Your task to perform on an android device: find photos in the google photos app Image 0: 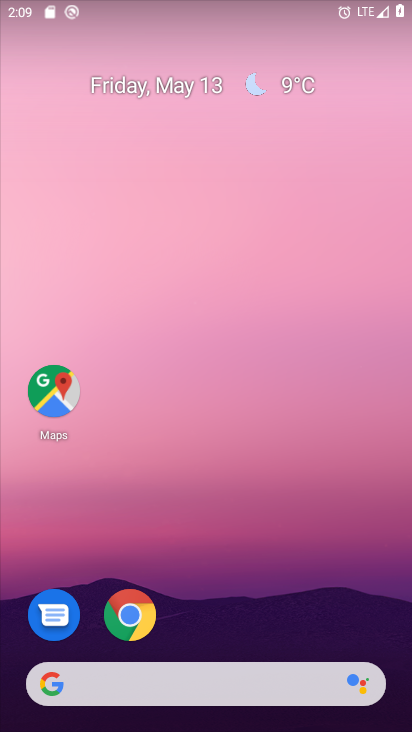
Step 0: drag from (315, 551) to (339, 84)
Your task to perform on an android device: find photos in the google photos app Image 1: 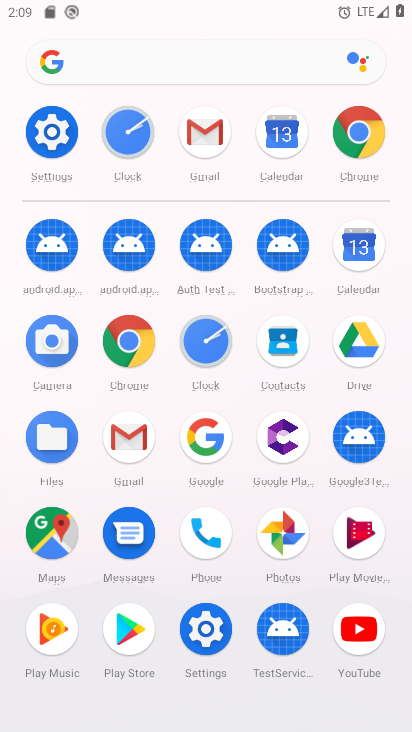
Step 1: click (266, 526)
Your task to perform on an android device: find photos in the google photos app Image 2: 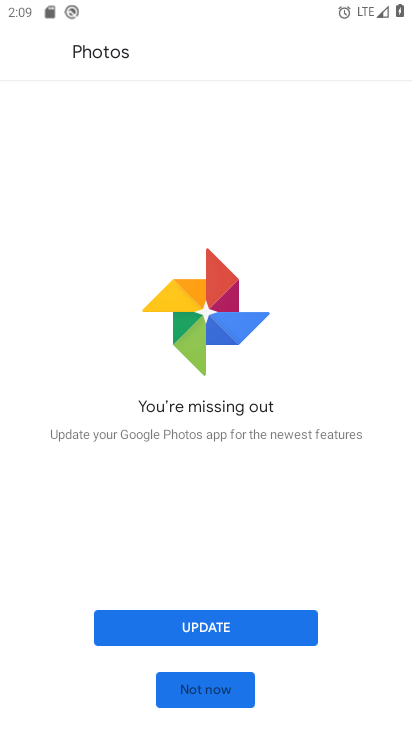
Step 2: click (228, 694)
Your task to perform on an android device: find photos in the google photos app Image 3: 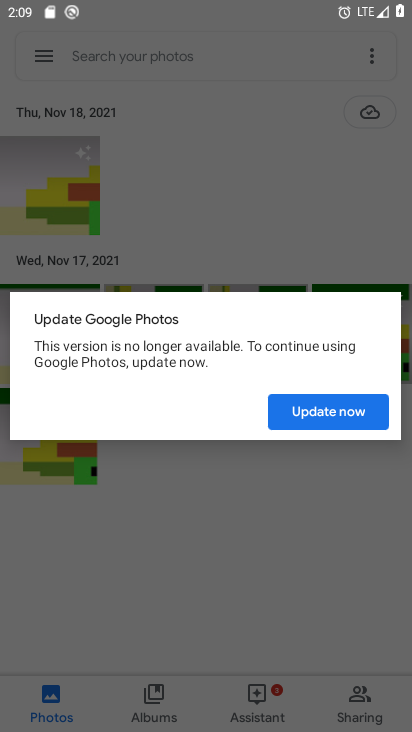
Step 3: click (283, 411)
Your task to perform on an android device: find photos in the google photos app Image 4: 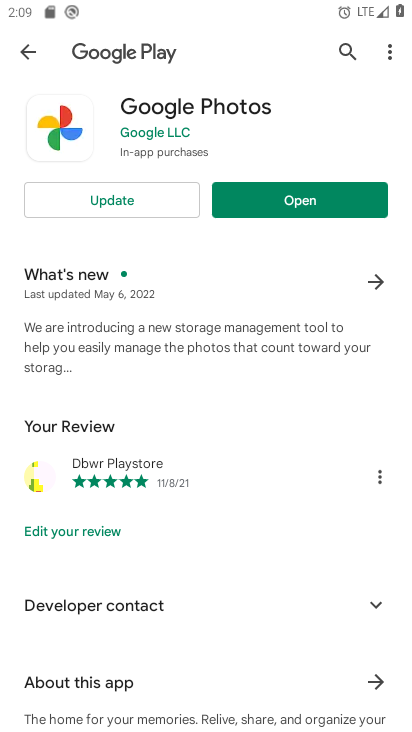
Step 4: click (317, 199)
Your task to perform on an android device: find photos in the google photos app Image 5: 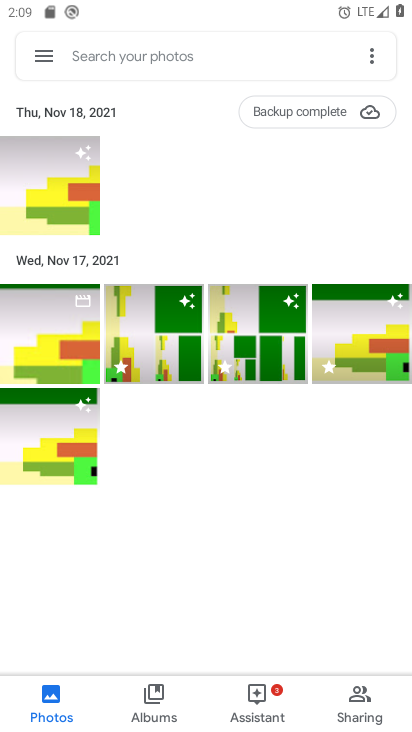
Step 5: click (68, 195)
Your task to perform on an android device: find photos in the google photos app Image 6: 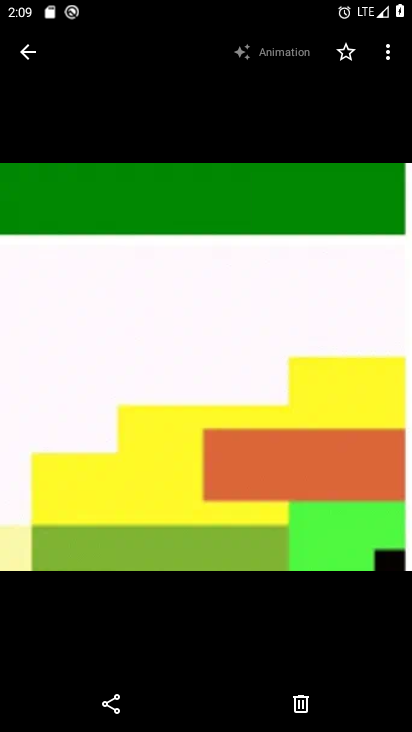
Step 6: task complete